Your task to perform on an android device: empty trash in google photos Image 0: 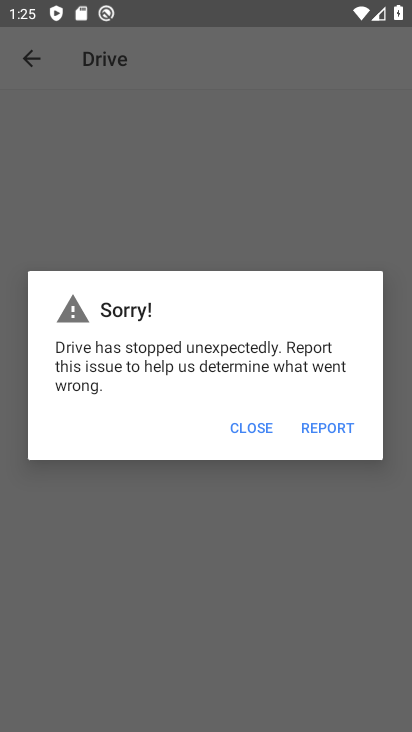
Step 0: click (131, 595)
Your task to perform on an android device: empty trash in google photos Image 1: 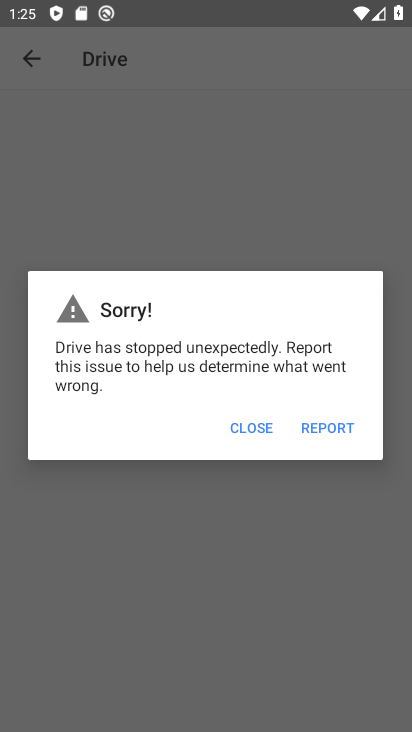
Step 1: press home button
Your task to perform on an android device: empty trash in google photos Image 2: 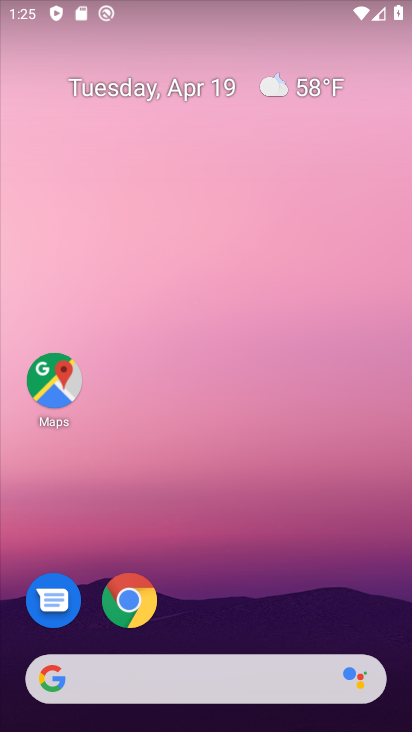
Step 2: drag from (198, 655) to (202, 438)
Your task to perform on an android device: empty trash in google photos Image 3: 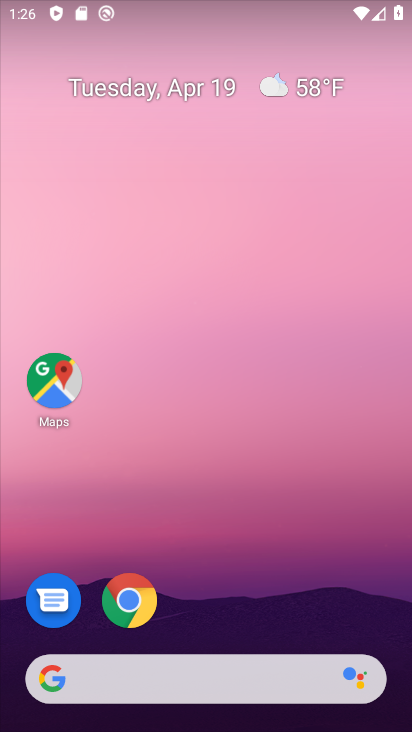
Step 3: drag from (165, 695) to (175, 573)
Your task to perform on an android device: empty trash in google photos Image 4: 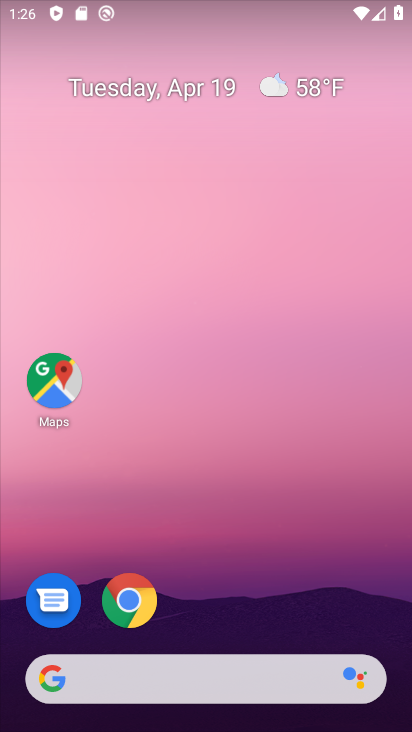
Step 4: drag from (193, 417) to (182, 350)
Your task to perform on an android device: empty trash in google photos Image 5: 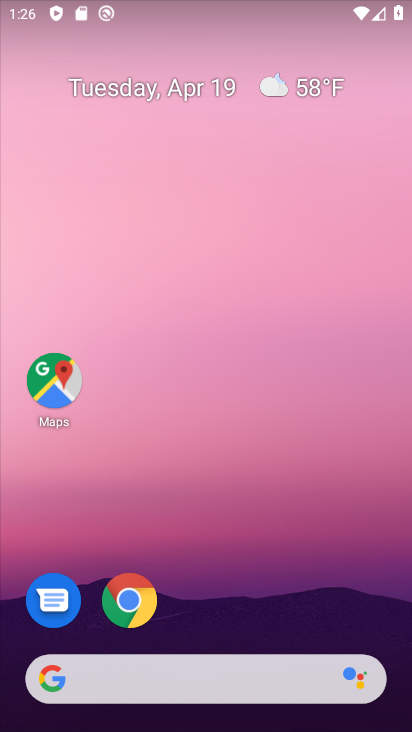
Step 5: drag from (230, 696) to (239, 355)
Your task to perform on an android device: empty trash in google photos Image 6: 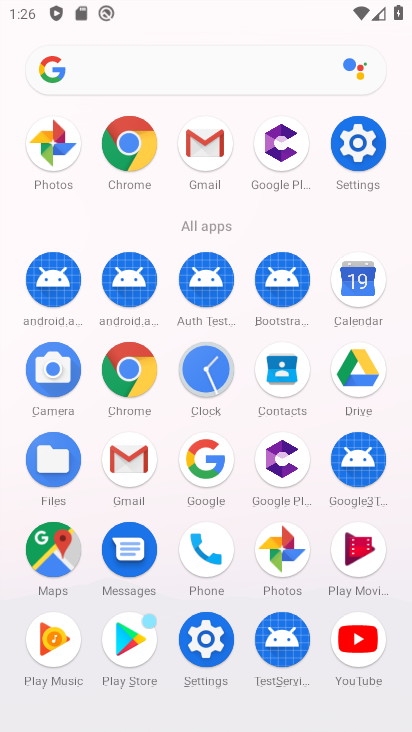
Step 6: click (270, 546)
Your task to perform on an android device: empty trash in google photos Image 7: 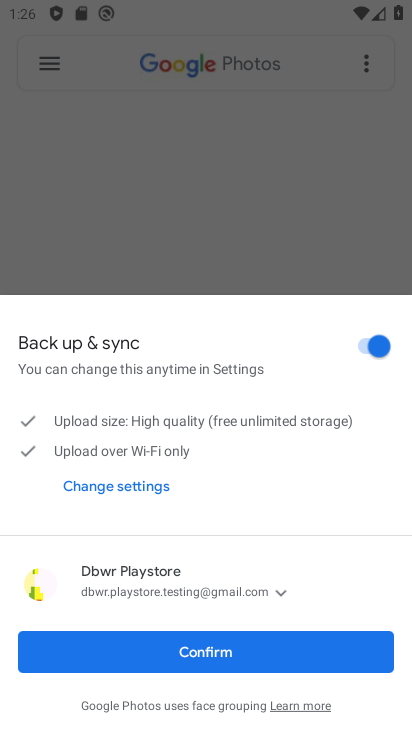
Step 7: click (153, 665)
Your task to perform on an android device: empty trash in google photos Image 8: 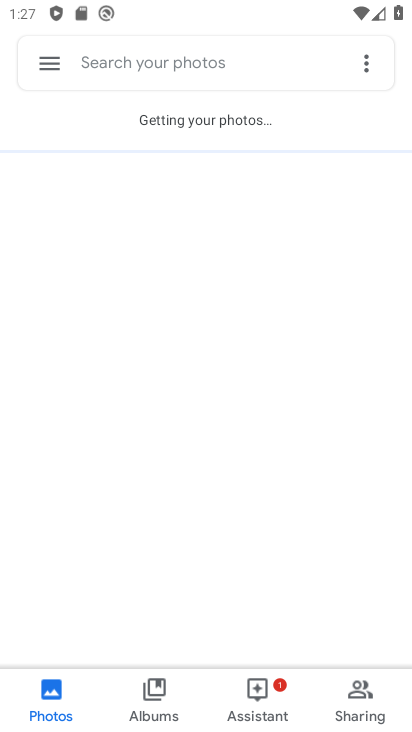
Step 8: click (152, 668)
Your task to perform on an android device: empty trash in google photos Image 9: 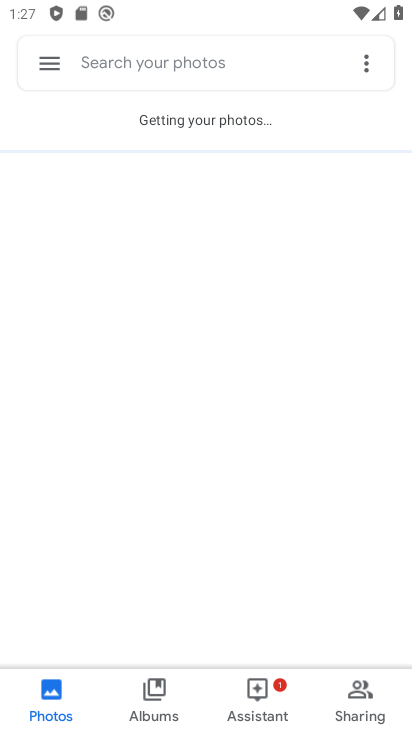
Step 9: click (34, 57)
Your task to perform on an android device: empty trash in google photos Image 10: 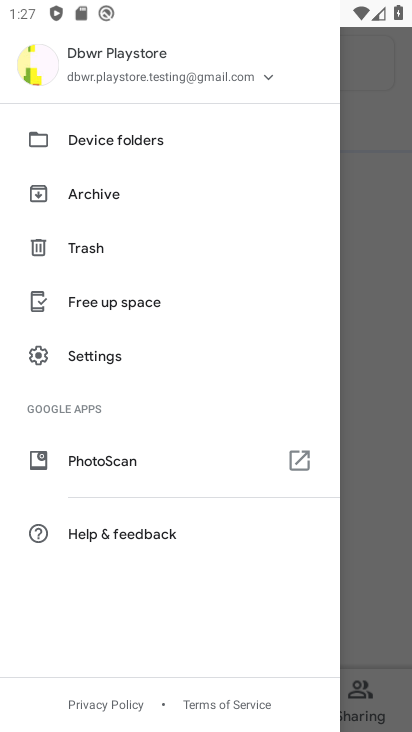
Step 10: click (78, 259)
Your task to perform on an android device: empty trash in google photos Image 11: 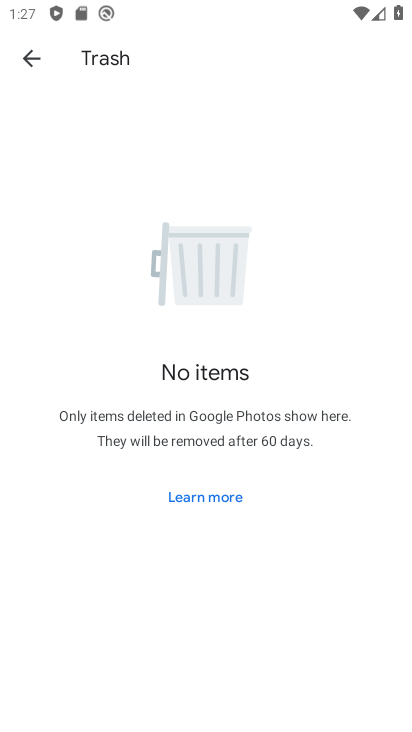
Step 11: task complete